Your task to perform on an android device: check data usage Image 0: 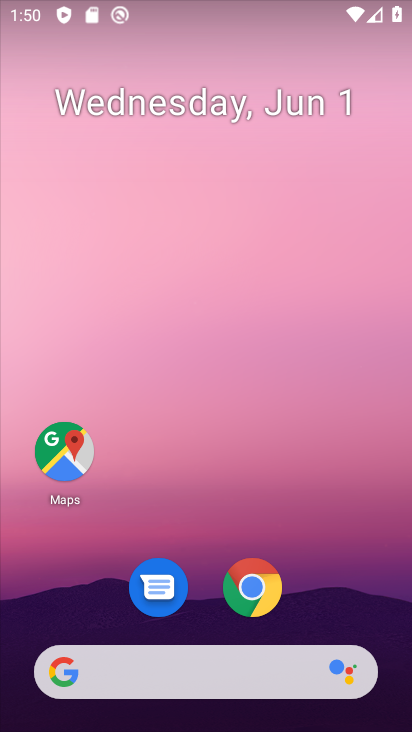
Step 0: drag from (358, 635) to (372, 105)
Your task to perform on an android device: check data usage Image 1: 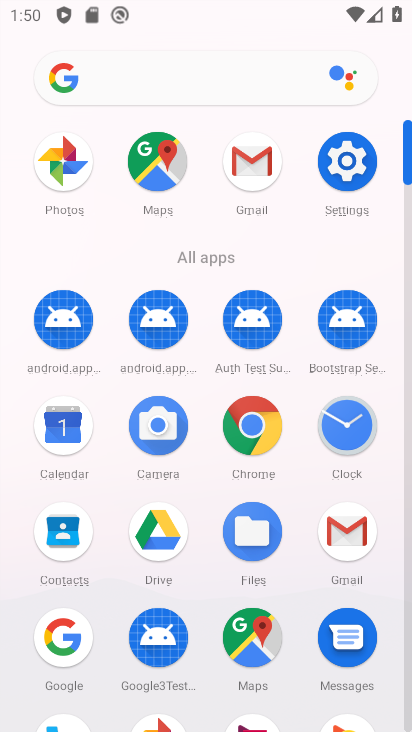
Step 1: click (357, 159)
Your task to perform on an android device: check data usage Image 2: 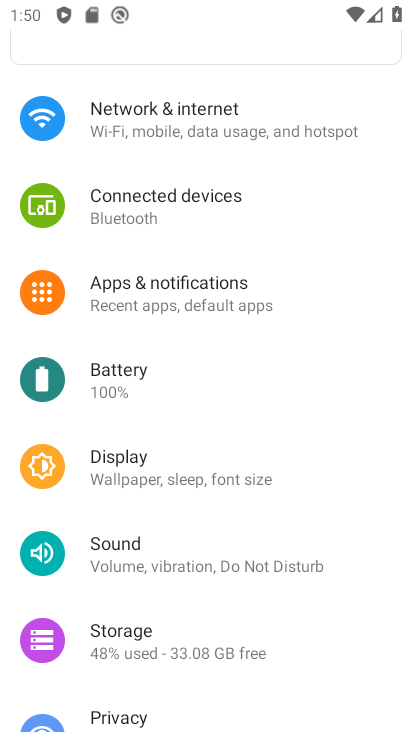
Step 2: click (213, 115)
Your task to perform on an android device: check data usage Image 3: 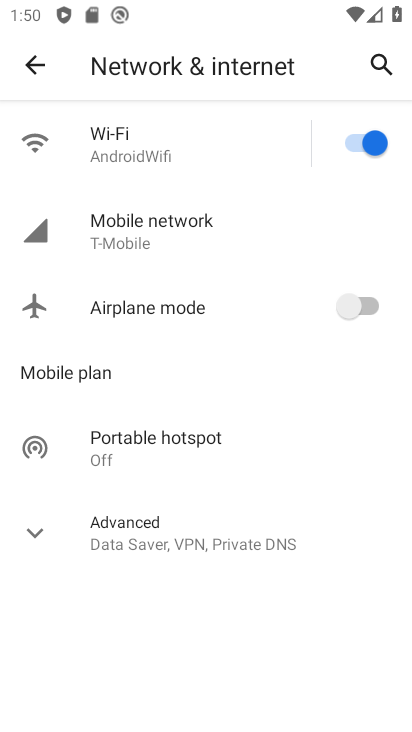
Step 3: click (190, 230)
Your task to perform on an android device: check data usage Image 4: 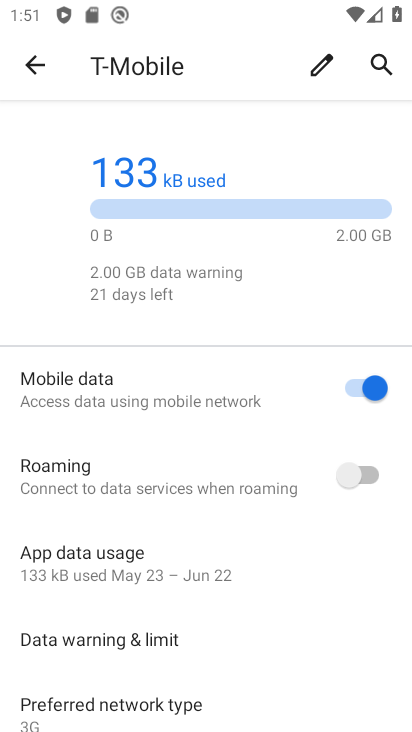
Step 4: task complete